Your task to perform on an android device: What's the weather? Image 0: 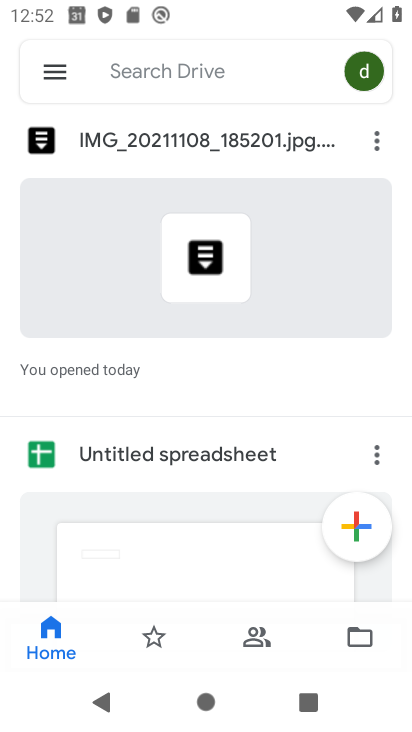
Step 0: press home button
Your task to perform on an android device: What's the weather? Image 1: 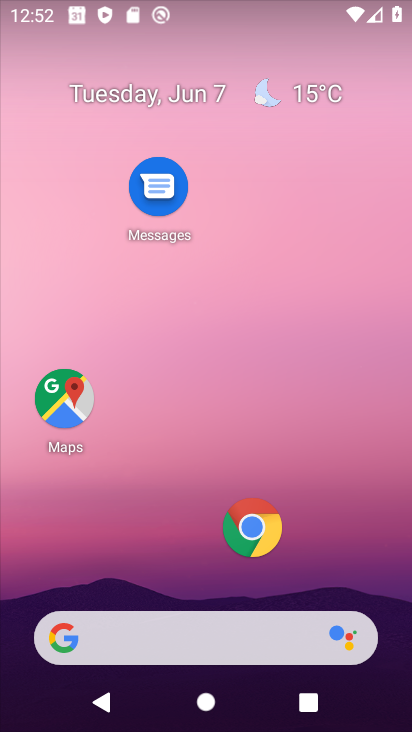
Step 1: drag from (213, 592) to (211, 301)
Your task to perform on an android device: What's the weather? Image 2: 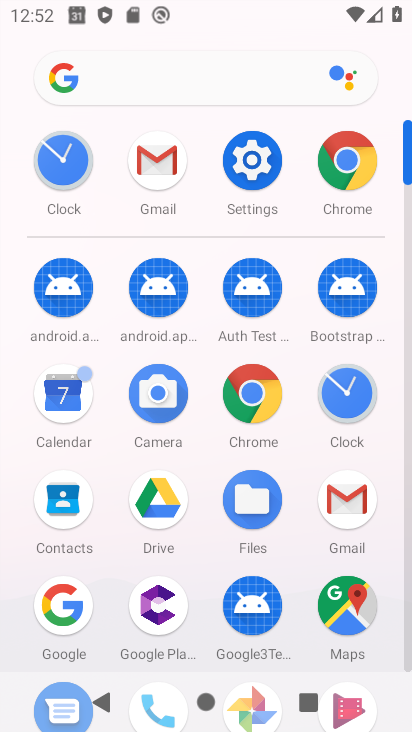
Step 2: click (59, 603)
Your task to perform on an android device: What's the weather? Image 3: 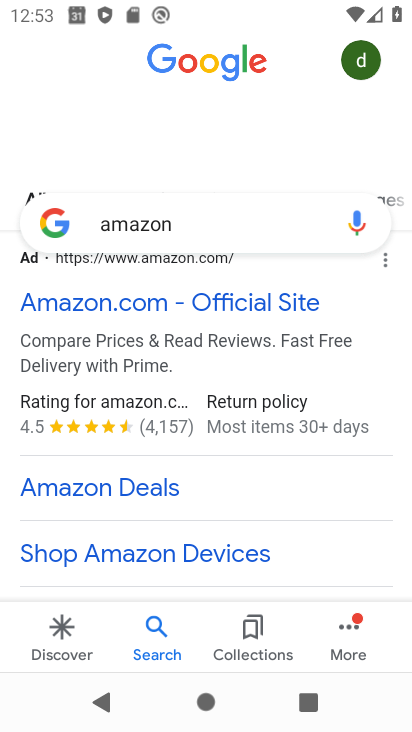
Step 3: click (194, 221)
Your task to perform on an android device: What's the weather? Image 4: 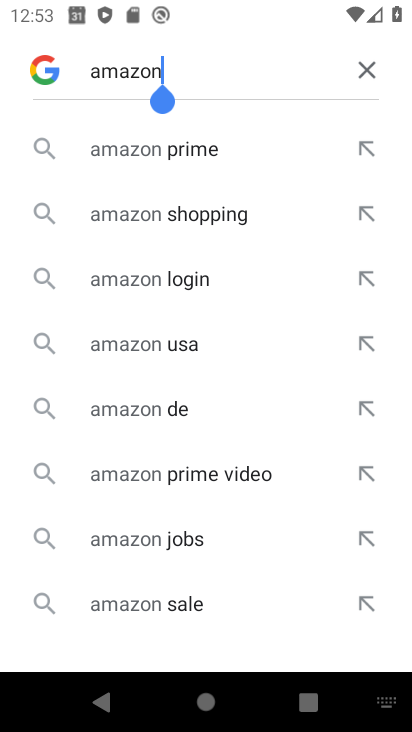
Step 4: click (360, 78)
Your task to perform on an android device: What's the weather? Image 5: 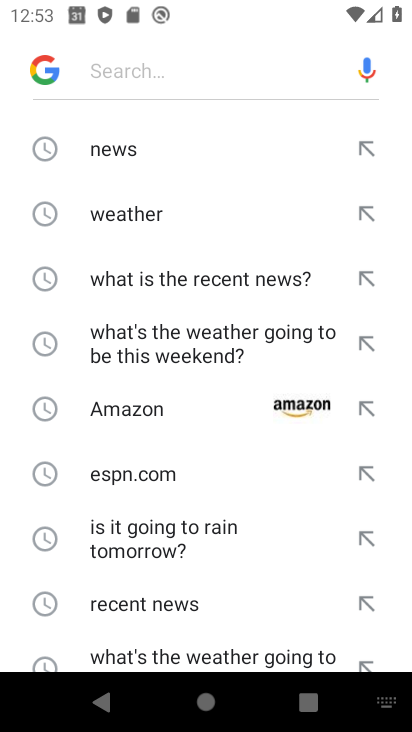
Step 5: click (145, 217)
Your task to perform on an android device: What's the weather? Image 6: 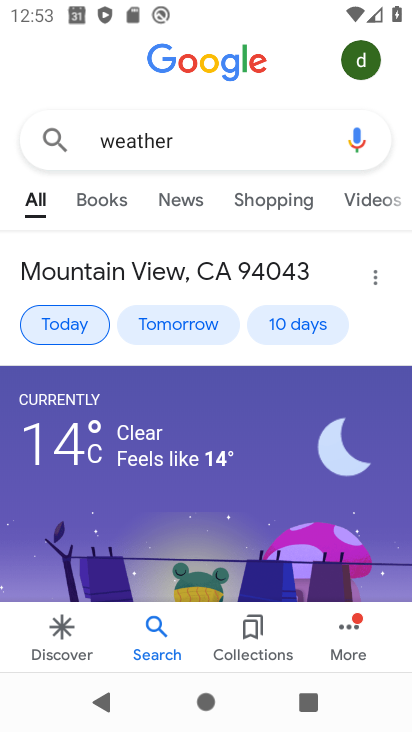
Step 6: task complete